Your task to perform on an android device: Is it going to rain today? Image 0: 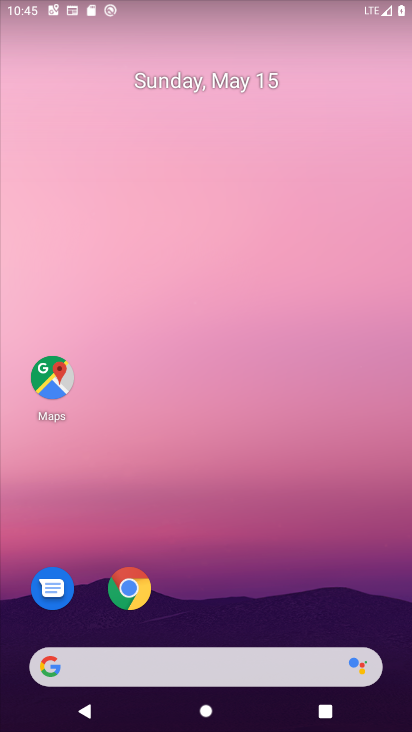
Step 0: click (211, 662)
Your task to perform on an android device: Is it going to rain today? Image 1: 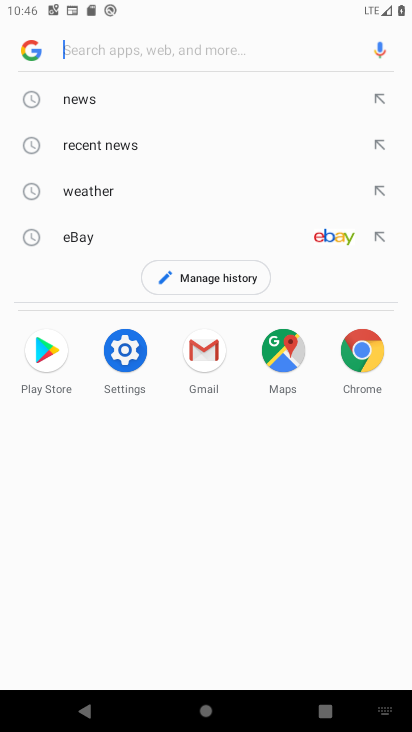
Step 1: click (139, 99)
Your task to perform on an android device: Is it going to rain today? Image 2: 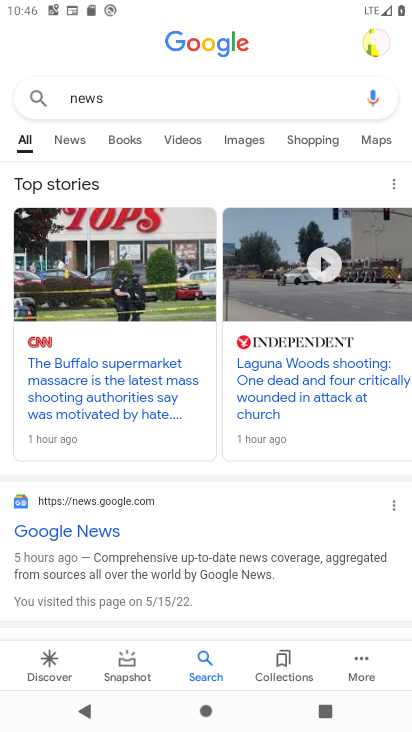
Step 2: click (128, 86)
Your task to perform on an android device: Is it going to rain today? Image 3: 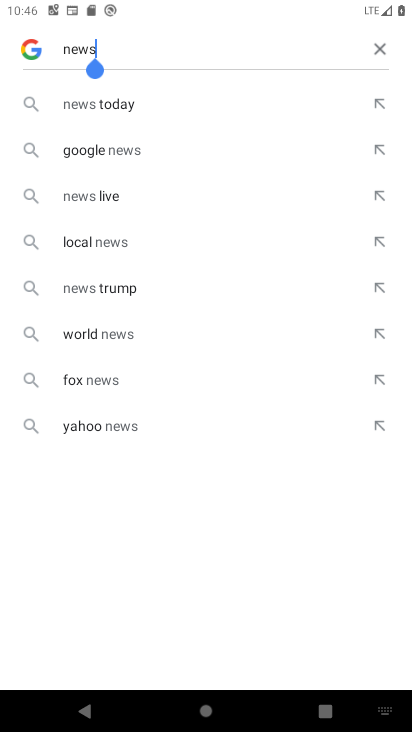
Step 3: click (377, 50)
Your task to perform on an android device: Is it going to rain today? Image 4: 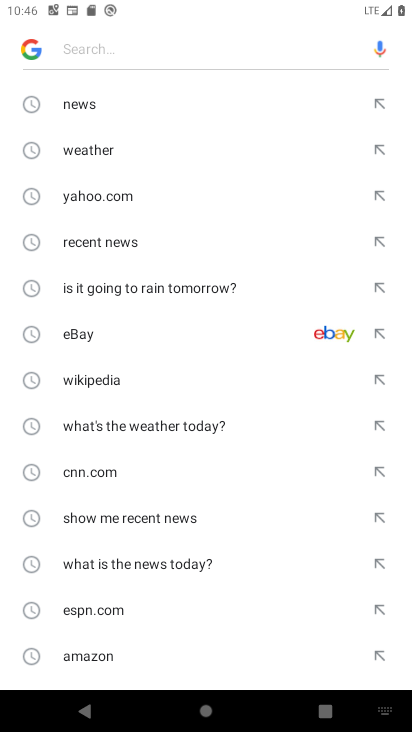
Step 4: click (108, 147)
Your task to perform on an android device: Is it going to rain today? Image 5: 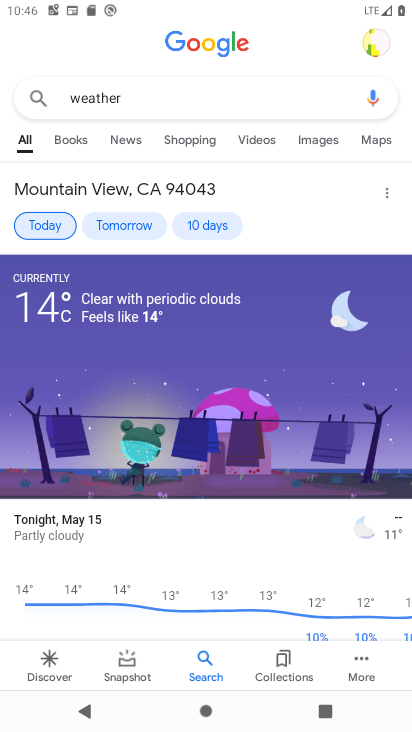
Step 5: task complete